Your task to perform on an android device: set the stopwatch Image 0: 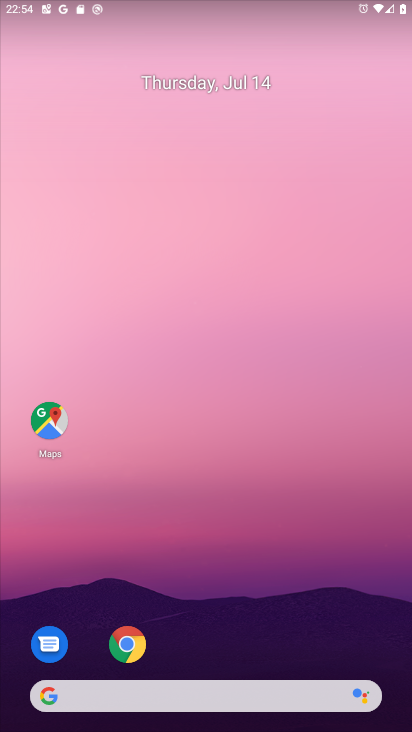
Step 0: drag from (185, 656) to (194, 121)
Your task to perform on an android device: set the stopwatch Image 1: 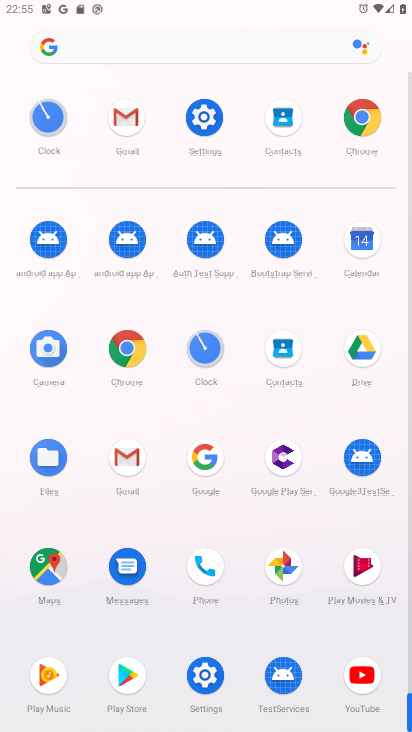
Step 1: click (53, 128)
Your task to perform on an android device: set the stopwatch Image 2: 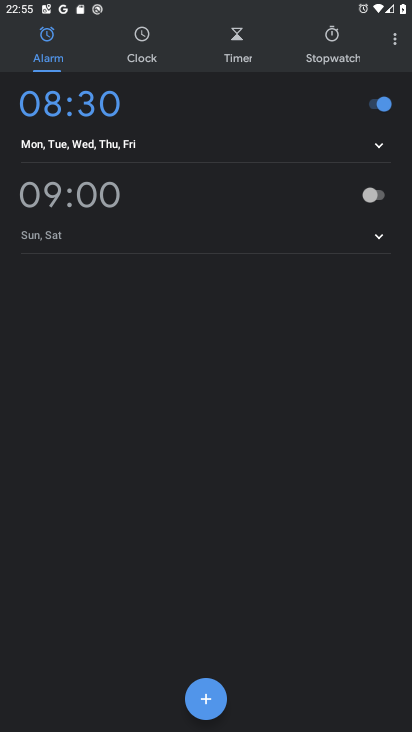
Step 2: click (346, 49)
Your task to perform on an android device: set the stopwatch Image 3: 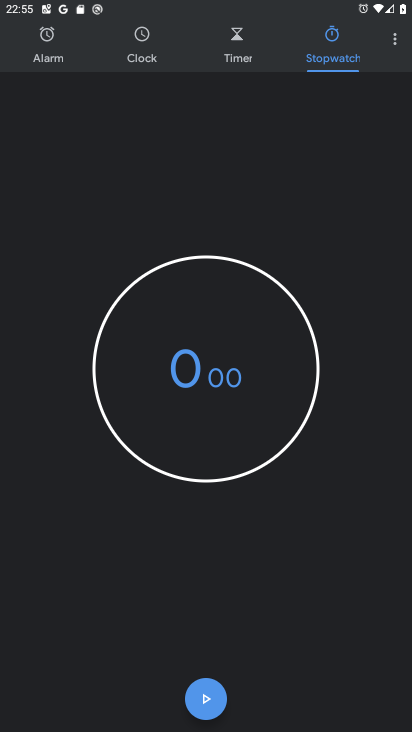
Step 3: click (201, 708)
Your task to perform on an android device: set the stopwatch Image 4: 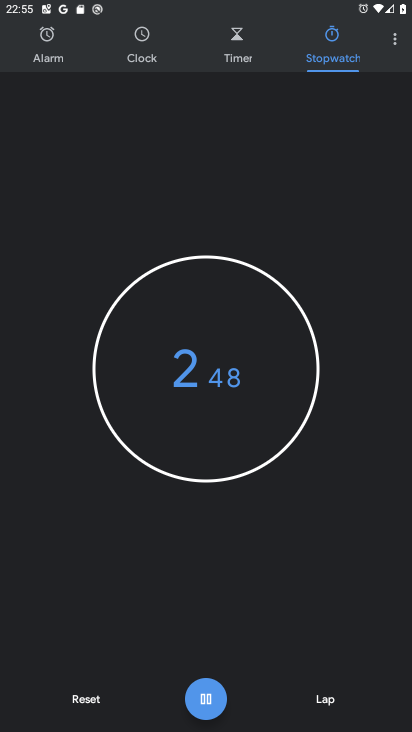
Step 4: task complete